Your task to perform on an android device: move an email to a new category in the gmail app Image 0: 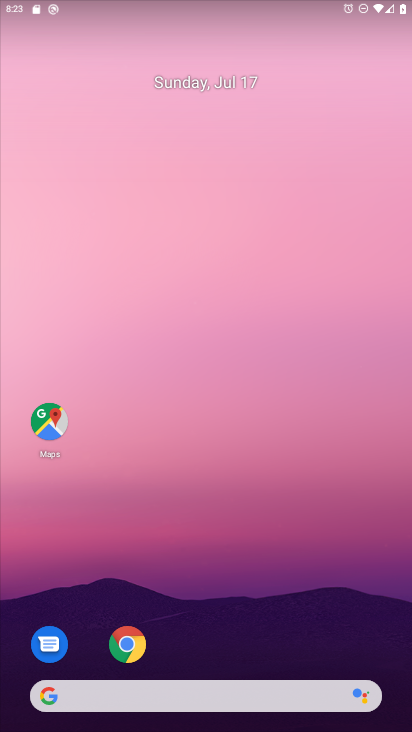
Step 0: drag from (288, 618) to (309, 254)
Your task to perform on an android device: move an email to a new category in the gmail app Image 1: 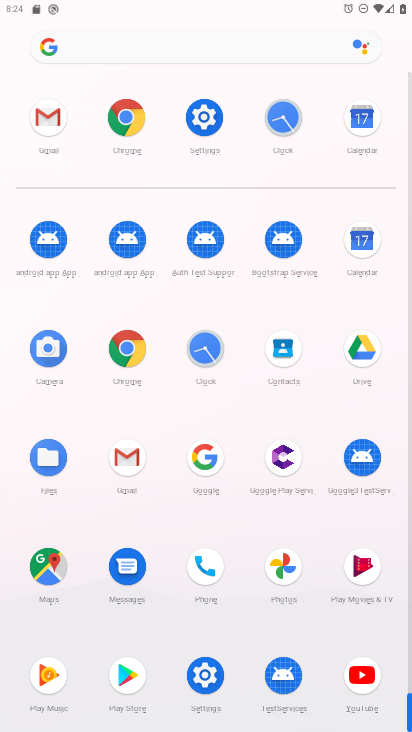
Step 1: click (124, 459)
Your task to perform on an android device: move an email to a new category in the gmail app Image 2: 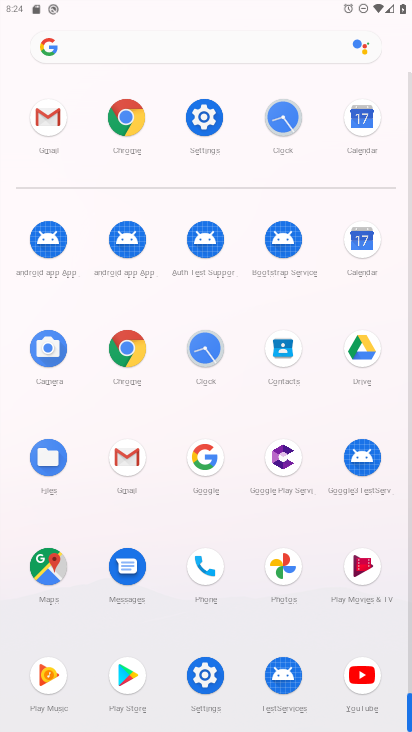
Step 2: click (126, 446)
Your task to perform on an android device: move an email to a new category in the gmail app Image 3: 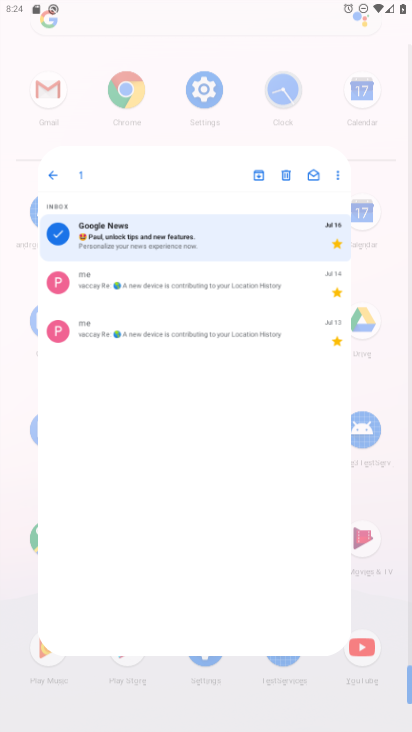
Step 3: click (112, 458)
Your task to perform on an android device: move an email to a new category in the gmail app Image 4: 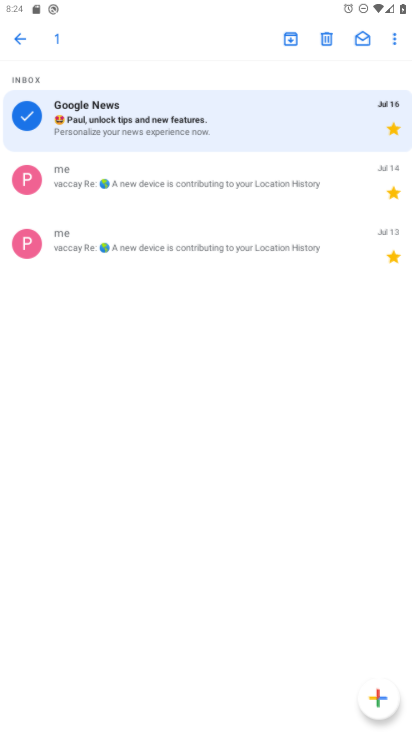
Step 4: click (113, 463)
Your task to perform on an android device: move an email to a new category in the gmail app Image 5: 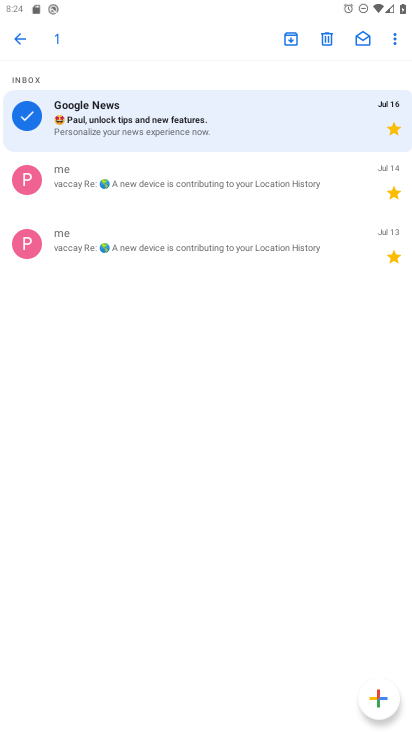
Step 5: click (113, 463)
Your task to perform on an android device: move an email to a new category in the gmail app Image 6: 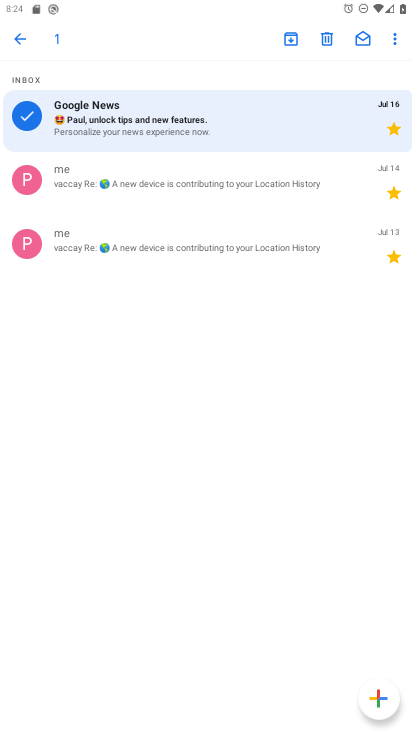
Step 6: click (393, 126)
Your task to perform on an android device: move an email to a new category in the gmail app Image 7: 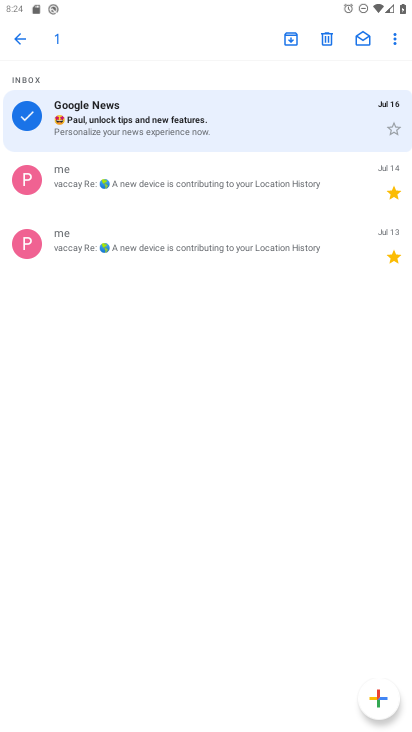
Step 7: task complete